Your task to perform on an android device: Open Google Maps Image 0: 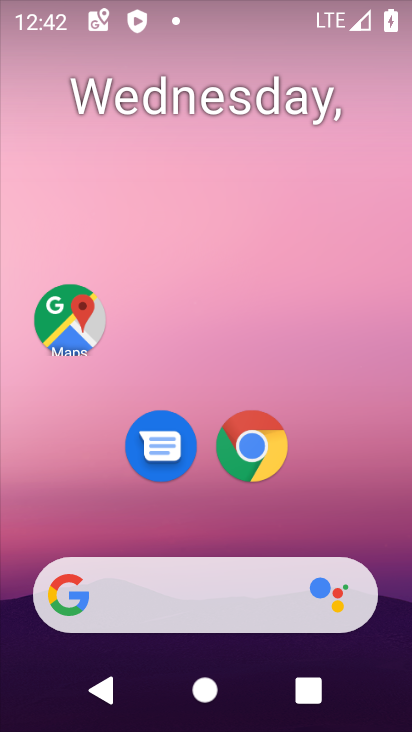
Step 0: click (268, 329)
Your task to perform on an android device: Open Google Maps Image 1: 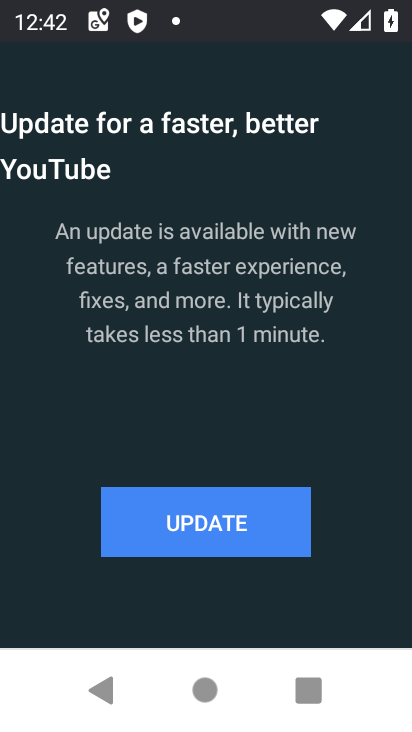
Step 1: press back button
Your task to perform on an android device: Open Google Maps Image 2: 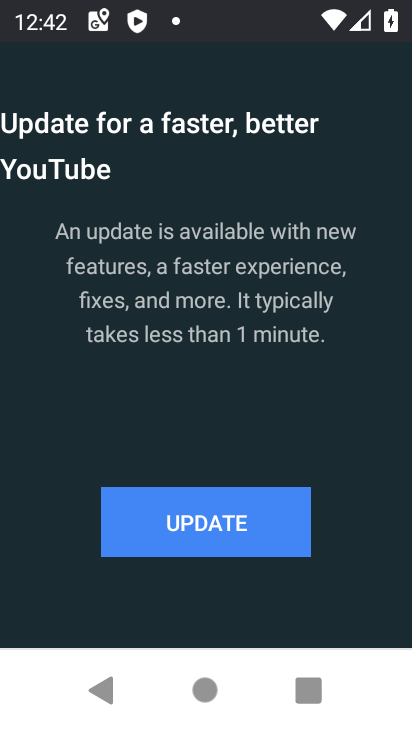
Step 2: press back button
Your task to perform on an android device: Open Google Maps Image 3: 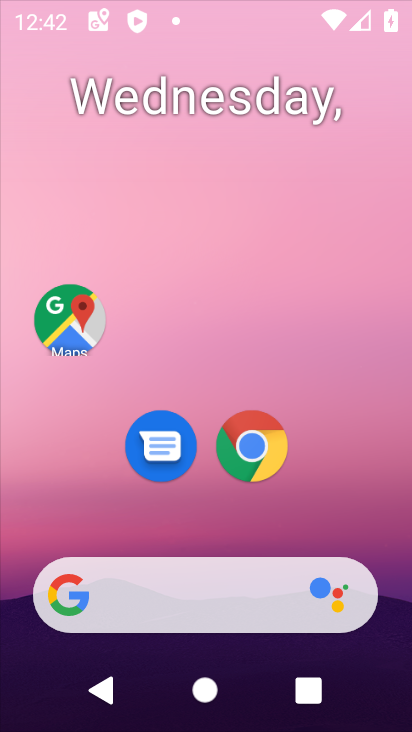
Step 3: press back button
Your task to perform on an android device: Open Google Maps Image 4: 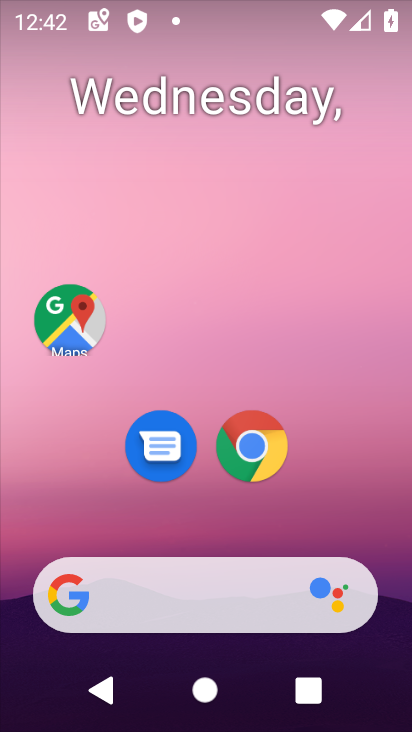
Step 4: drag from (333, 590) to (136, 232)
Your task to perform on an android device: Open Google Maps Image 5: 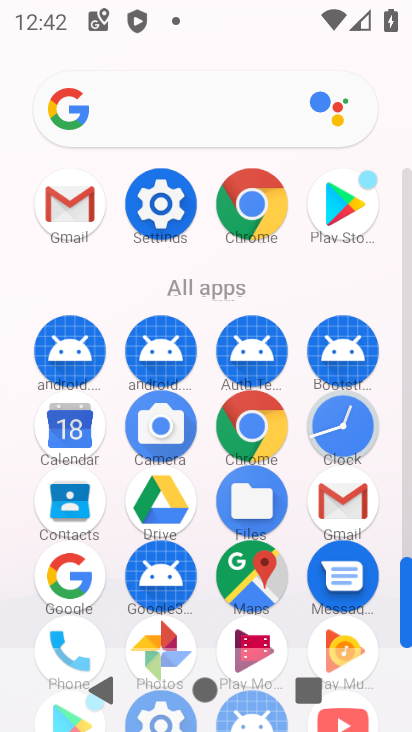
Step 5: click (260, 567)
Your task to perform on an android device: Open Google Maps Image 6: 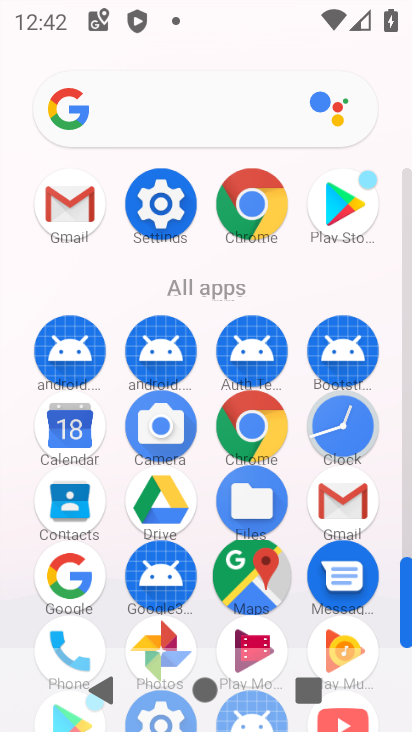
Step 6: click (263, 564)
Your task to perform on an android device: Open Google Maps Image 7: 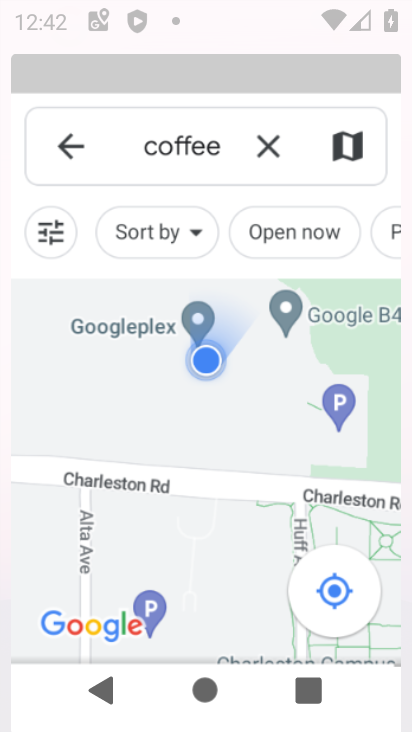
Step 7: click (263, 564)
Your task to perform on an android device: Open Google Maps Image 8: 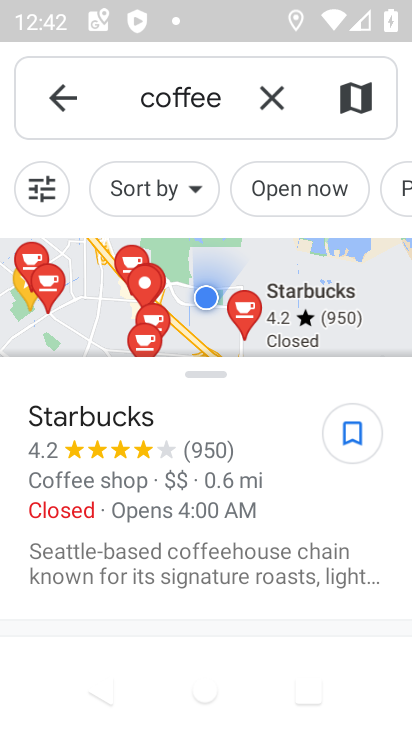
Step 8: click (274, 105)
Your task to perform on an android device: Open Google Maps Image 9: 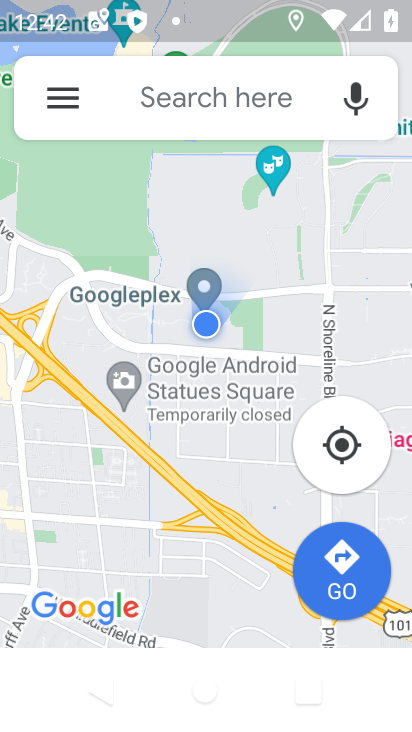
Step 9: task complete